Your task to perform on an android device: Show me popular games on the Play Store Image 0: 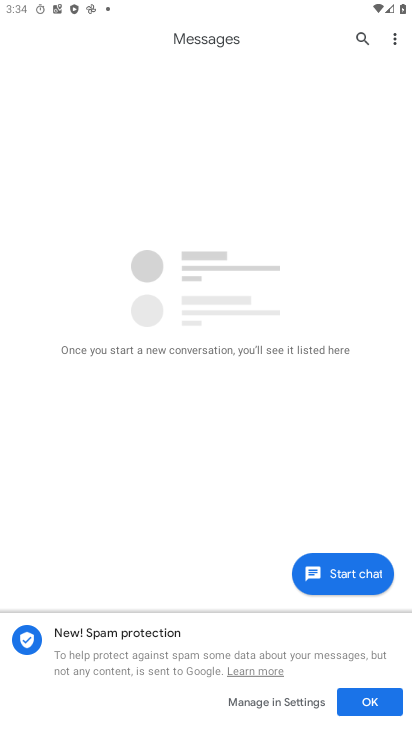
Step 0: press home button
Your task to perform on an android device: Show me popular games on the Play Store Image 1: 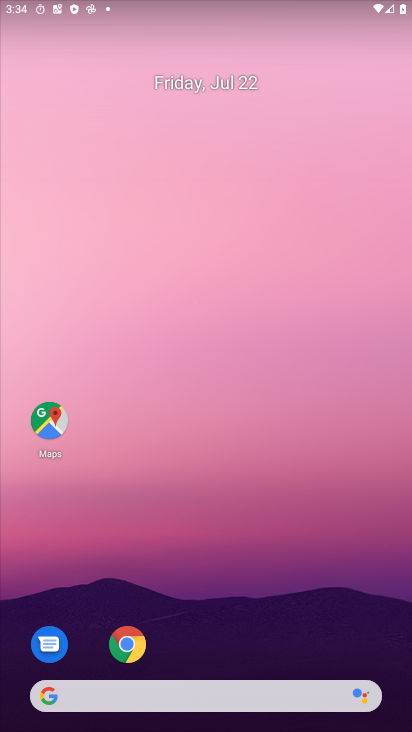
Step 1: drag from (206, 639) to (219, 78)
Your task to perform on an android device: Show me popular games on the Play Store Image 2: 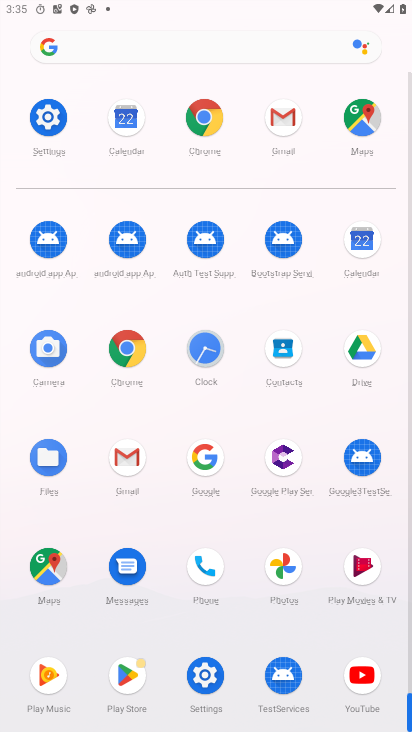
Step 2: drag from (184, 524) to (159, 254)
Your task to perform on an android device: Show me popular games on the Play Store Image 3: 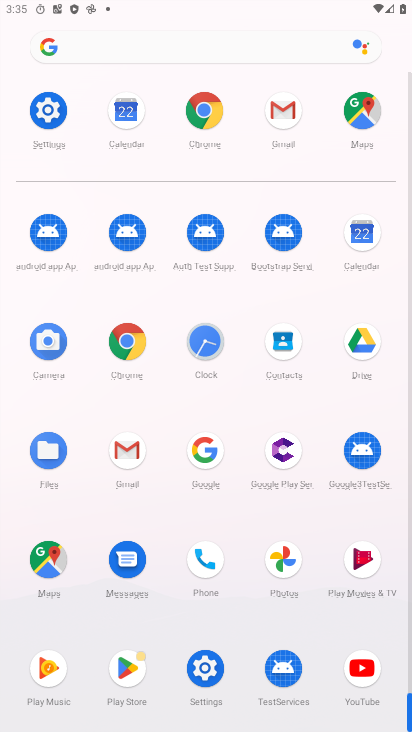
Step 3: click (135, 674)
Your task to perform on an android device: Show me popular games on the Play Store Image 4: 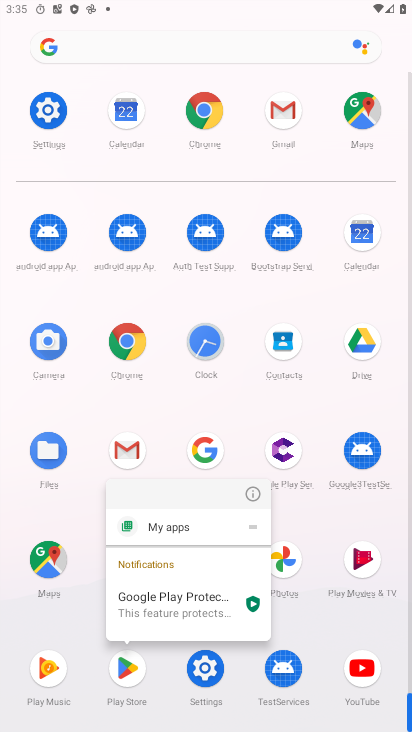
Step 4: click (389, 176)
Your task to perform on an android device: Show me popular games on the Play Store Image 5: 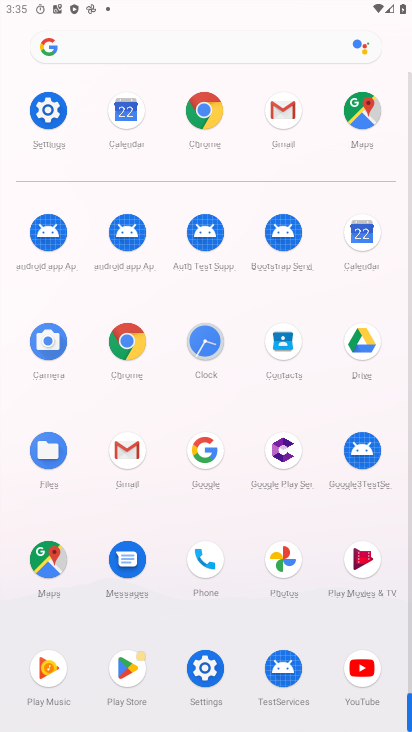
Step 5: click (132, 683)
Your task to perform on an android device: Show me popular games on the Play Store Image 6: 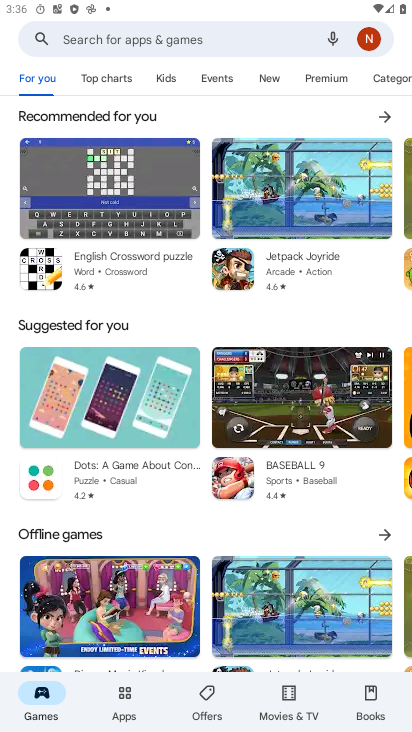
Step 6: click (190, 43)
Your task to perform on an android device: Show me popular games on the Play Store Image 7: 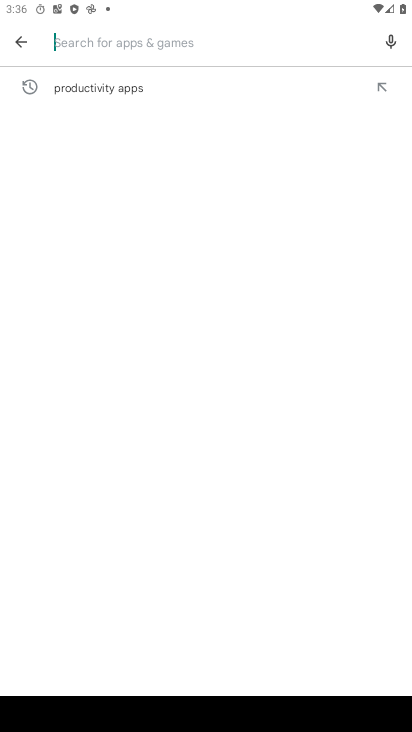
Step 7: type "population"
Your task to perform on an android device: Show me popular games on the Play Store Image 8: 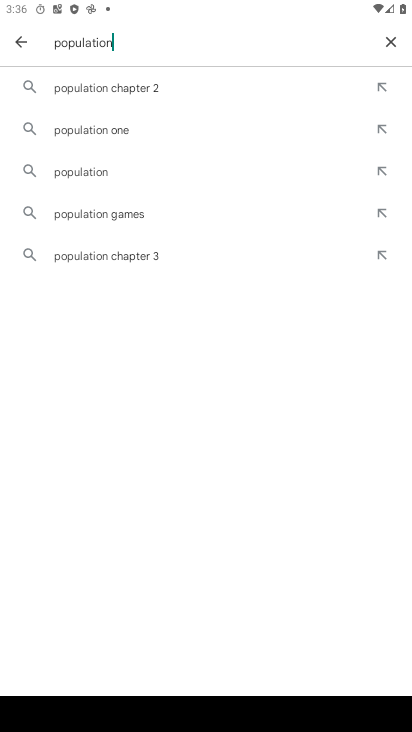
Step 8: click (13, 33)
Your task to perform on an android device: Show me popular games on the Play Store Image 9: 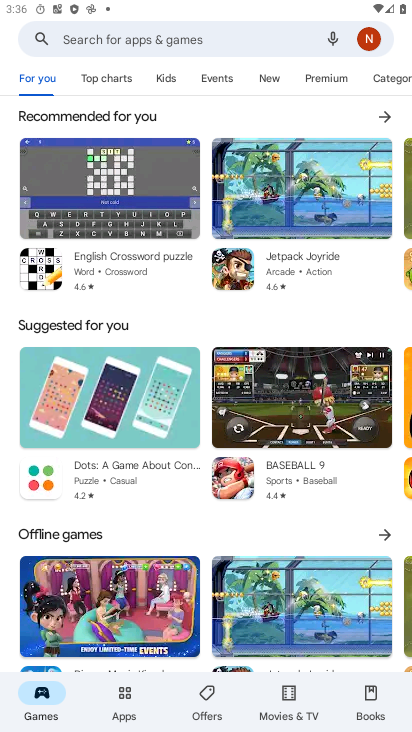
Step 9: task complete